Your task to perform on an android device: Empty the shopping cart on target.com. Add "logitech g pro" to the cart on target.com, then select checkout. Image 0: 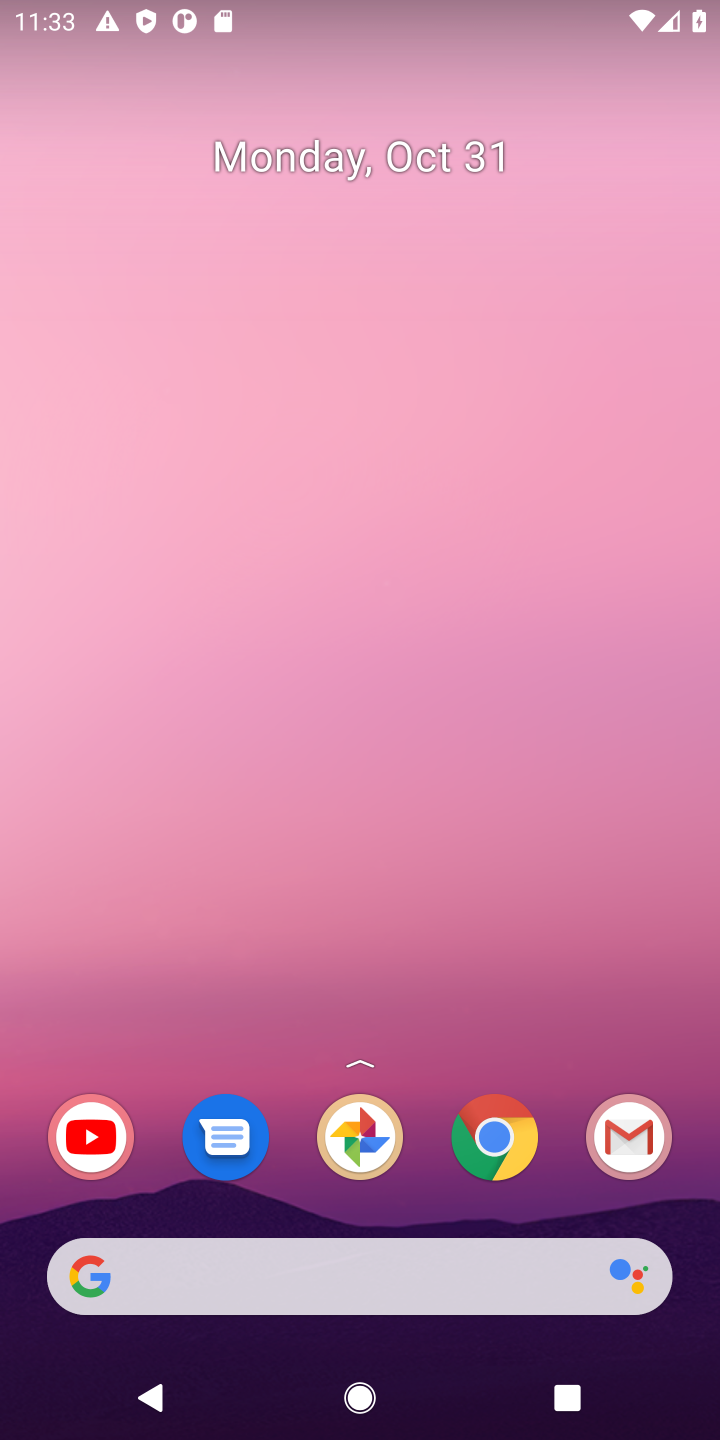
Step 0: click (493, 1135)
Your task to perform on an android device: Empty the shopping cart on target.com. Add "logitech g pro" to the cart on target.com, then select checkout. Image 1: 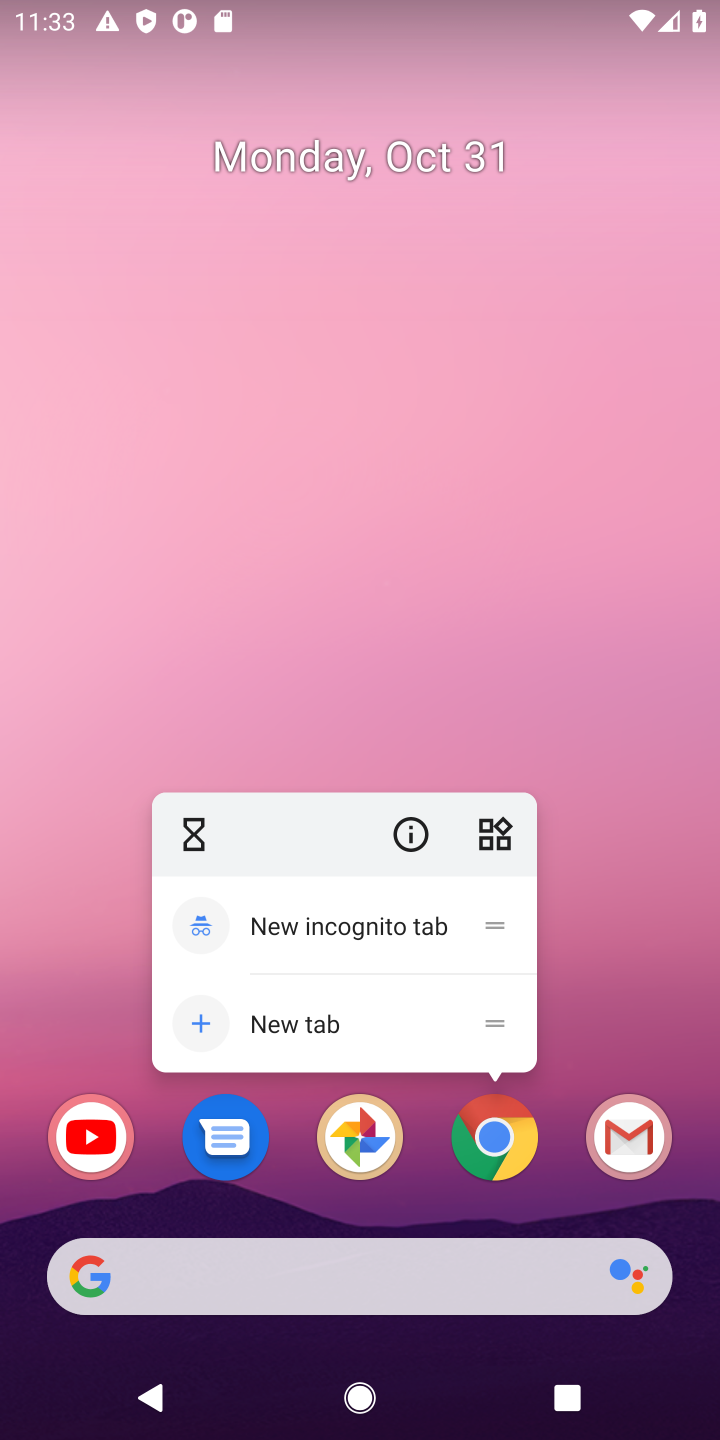
Step 1: click (493, 1135)
Your task to perform on an android device: Empty the shopping cart on target.com. Add "logitech g pro" to the cart on target.com, then select checkout. Image 2: 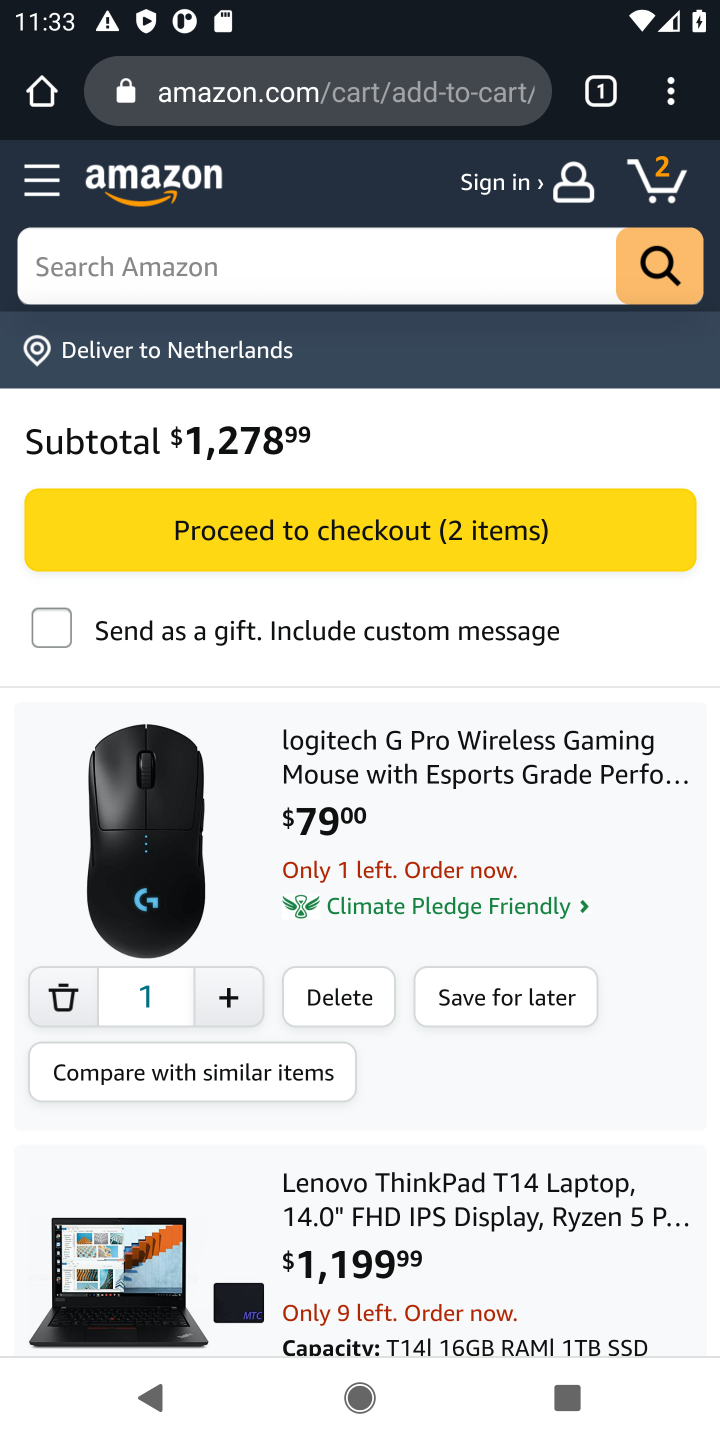
Step 2: click (312, 77)
Your task to perform on an android device: Empty the shopping cart on target.com. Add "logitech g pro" to the cart on target.com, then select checkout. Image 3: 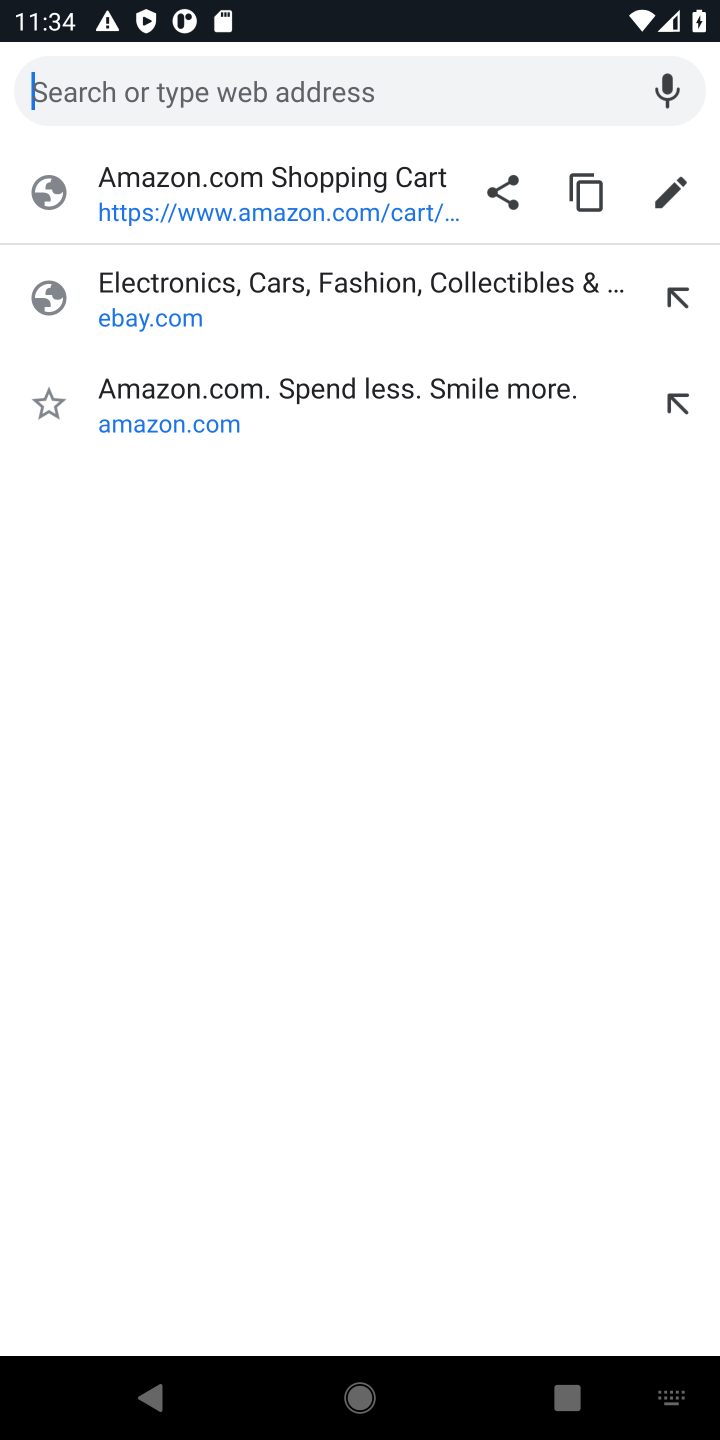
Step 3: type "target.com"
Your task to perform on an android device: Empty the shopping cart on target.com. Add "logitech g pro" to the cart on target.com, then select checkout. Image 4: 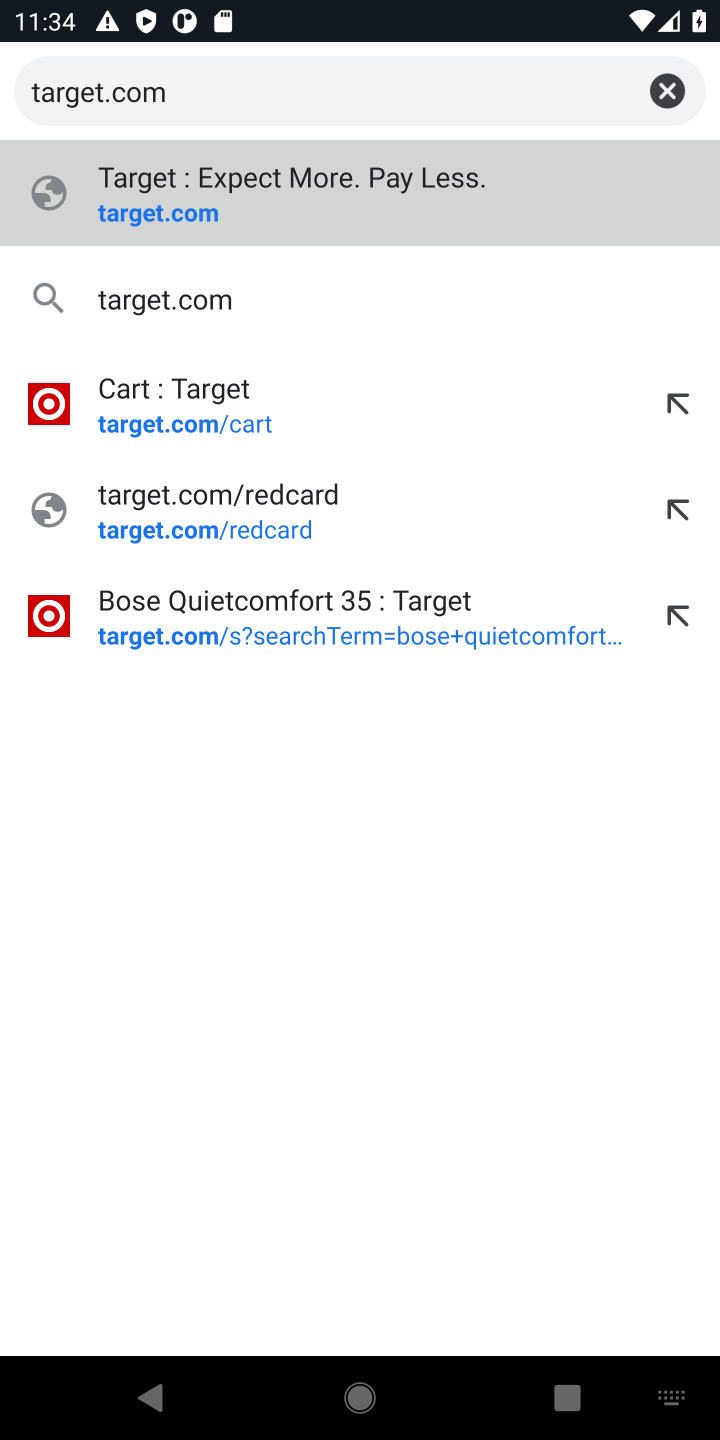
Step 4: click (211, 311)
Your task to perform on an android device: Empty the shopping cart on target.com. Add "logitech g pro" to the cart on target.com, then select checkout. Image 5: 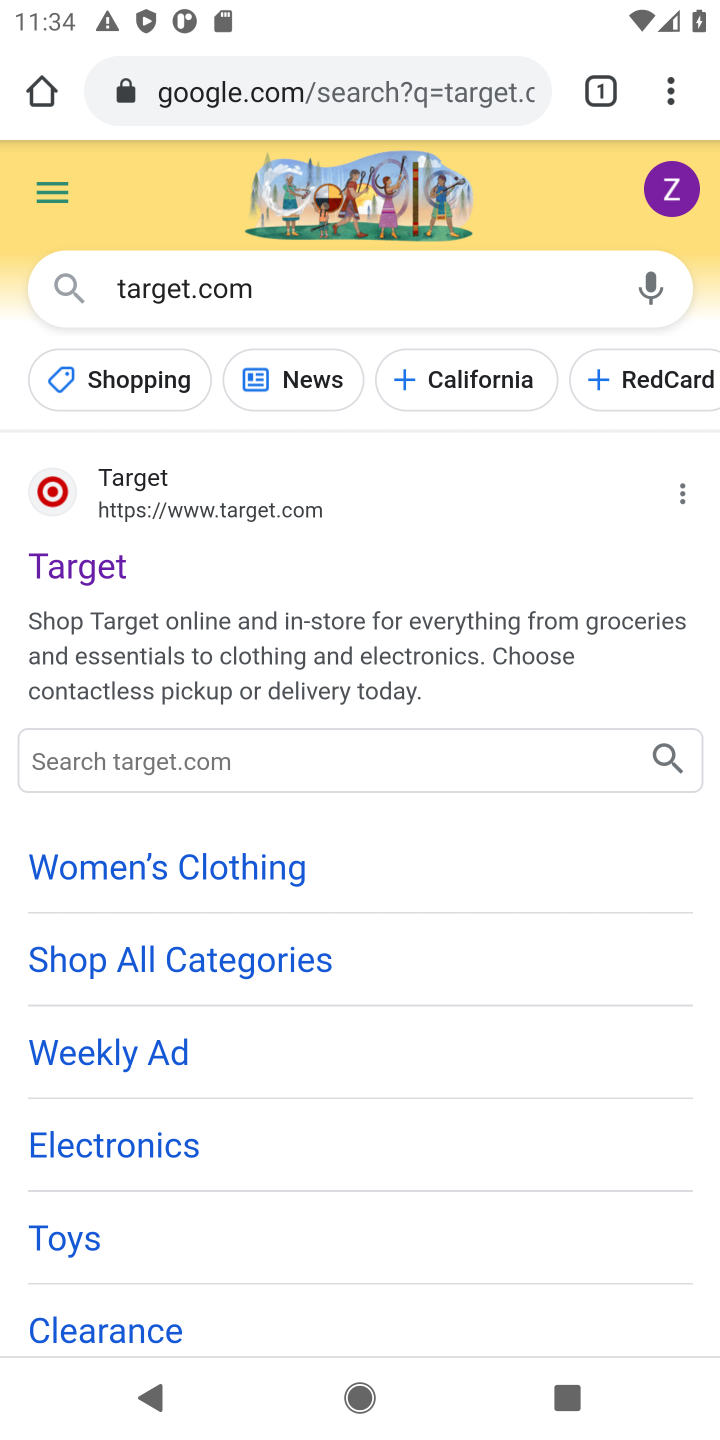
Step 5: click (172, 501)
Your task to perform on an android device: Empty the shopping cart on target.com. Add "logitech g pro" to the cart on target.com, then select checkout. Image 6: 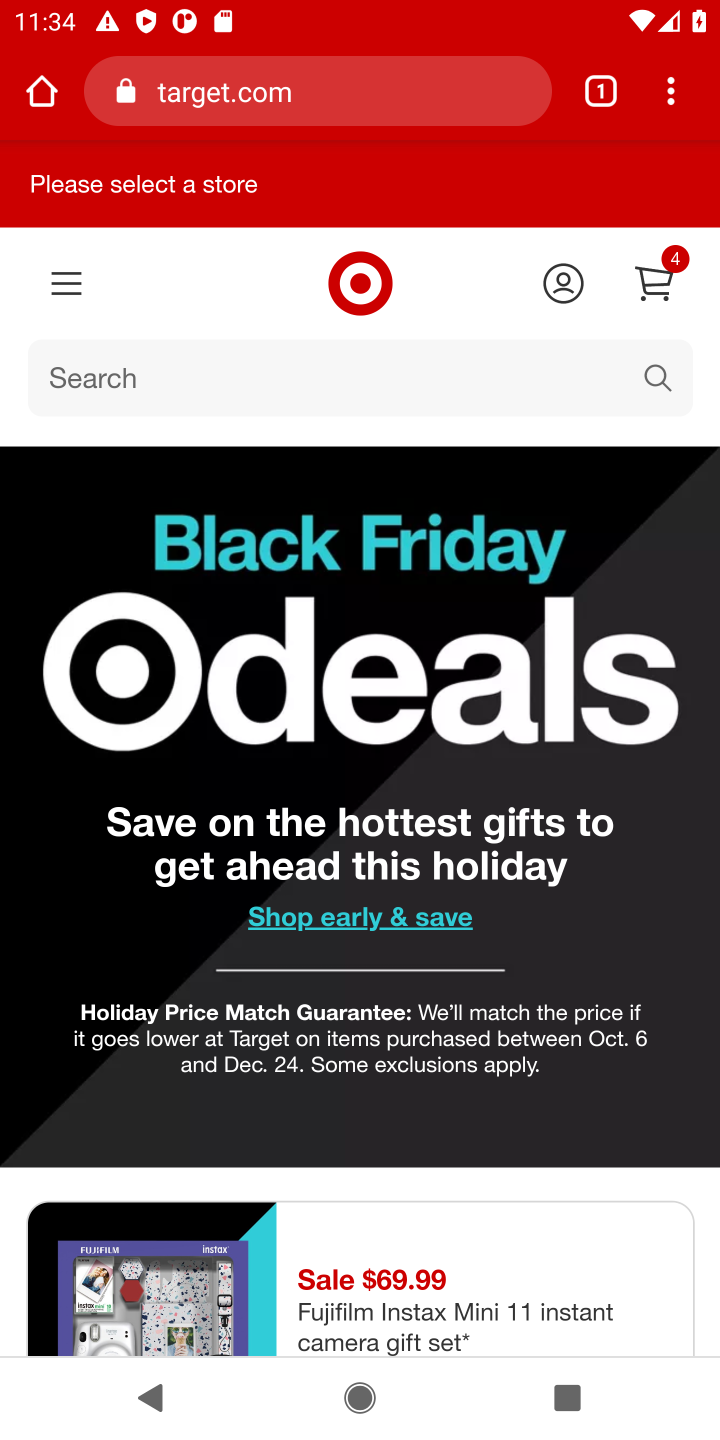
Step 6: click (665, 275)
Your task to perform on an android device: Empty the shopping cart on target.com. Add "logitech g pro" to the cart on target.com, then select checkout. Image 7: 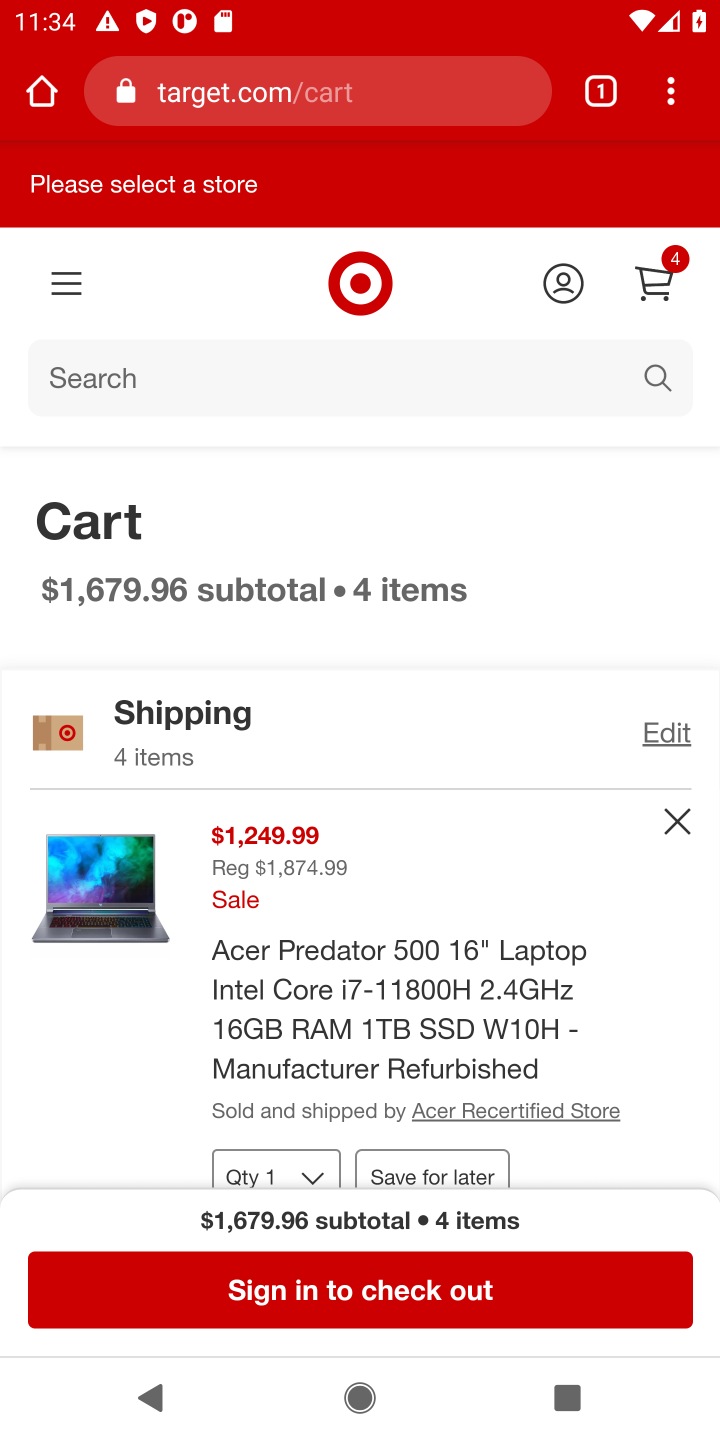
Step 7: drag from (538, 975) to (533, 621)
Your task to perform on an android device: Empty the shopping cart on target.com. Add "logitech g pro" to the cart on target.com, then select checkout. Image 8: 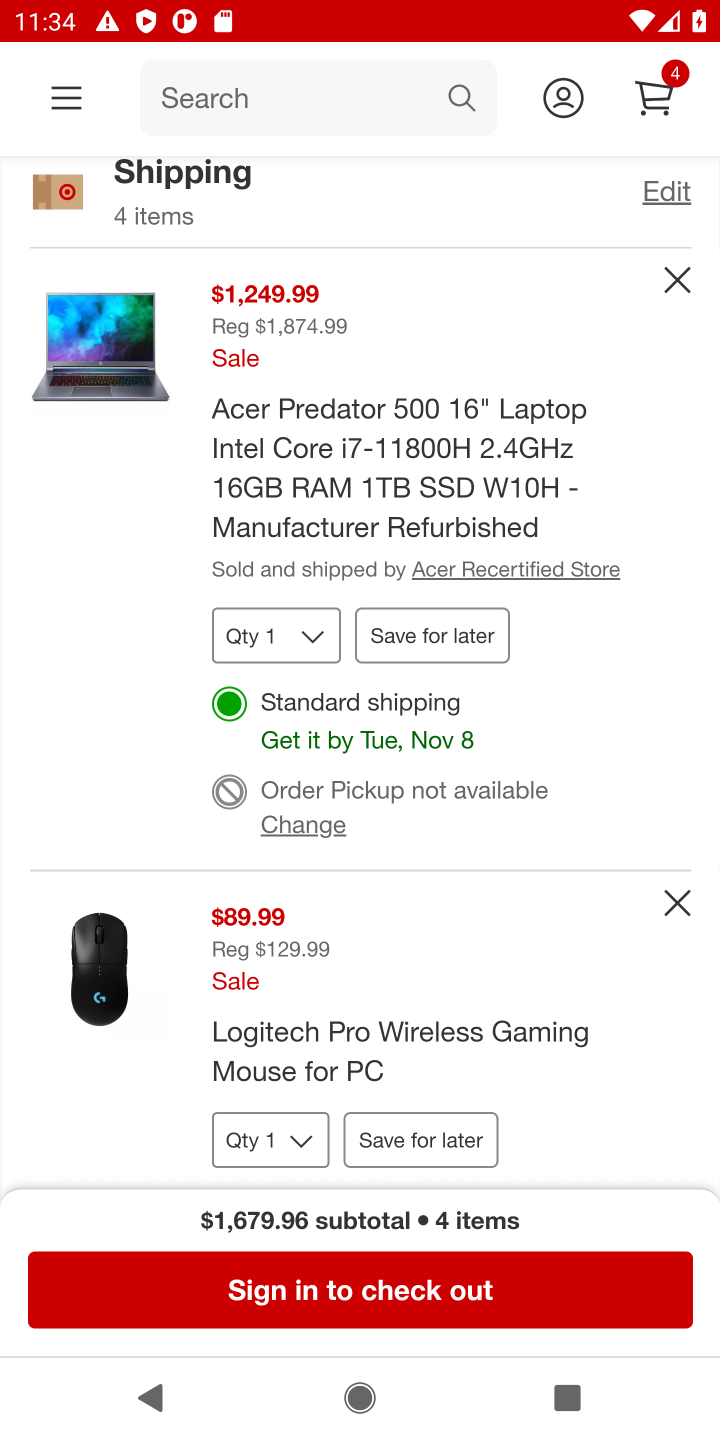
Step 8: click (452, 845)
Your task to perform on an android device: Empty the shopping cart on target.com. Add "logitech g pro" to the cart on target.com, then select checkout. Image 9: 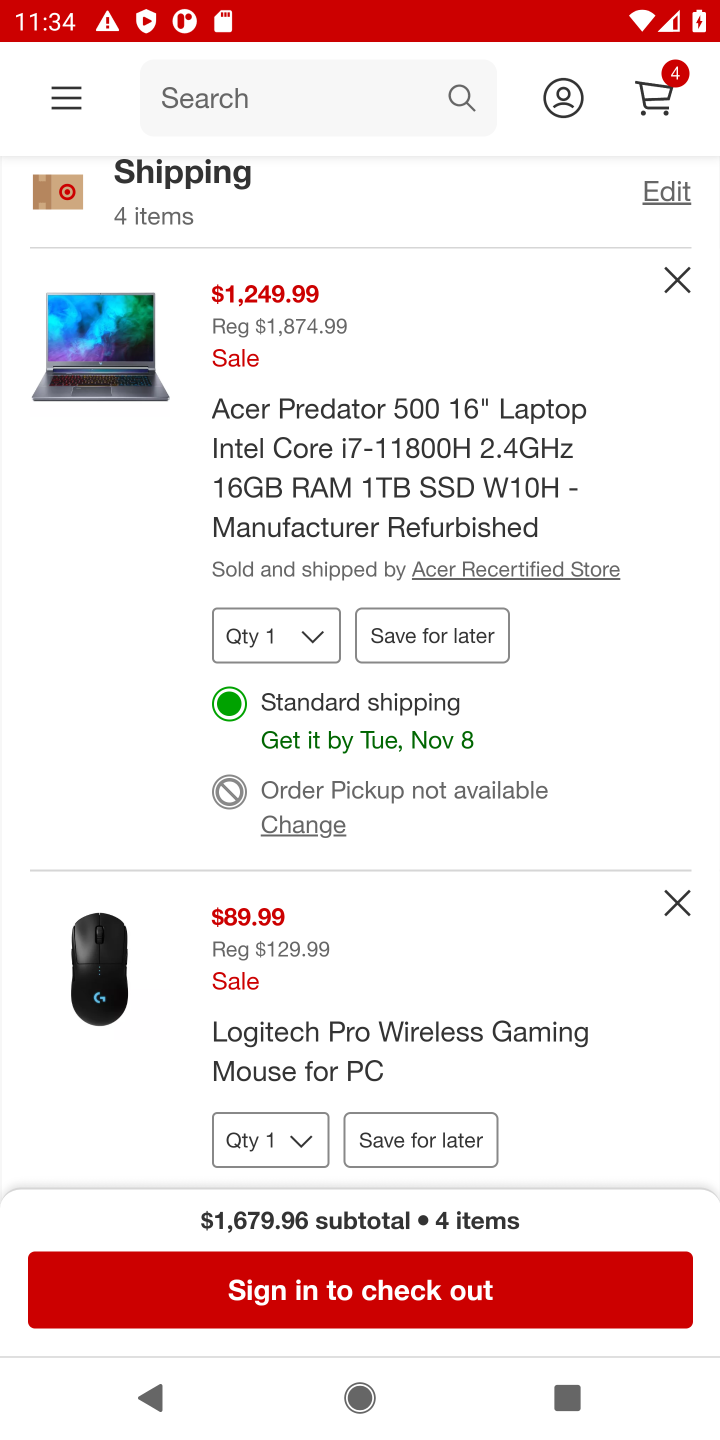
Step 9: click (437, 637)
Your task to perform on an android device: Empty the shopping cart on target.com. Add "logitech g pro" to the cart on target.com, then select checkout. Image 10: 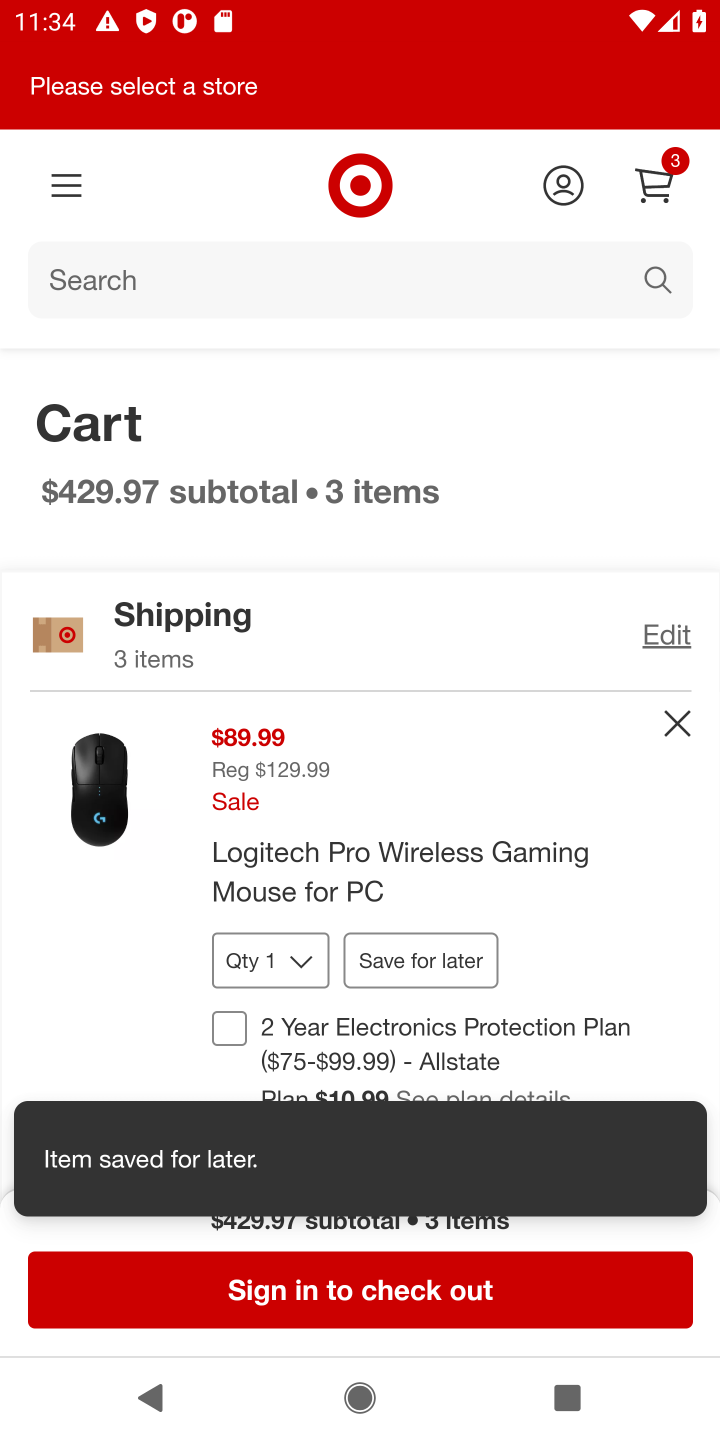
Step 10: click (424, 958)
Your task to perform on an android device: Empty the shopping cart on target.com. Add "logitech g pro" to the cart on target.com, then select checkout. Image 11: 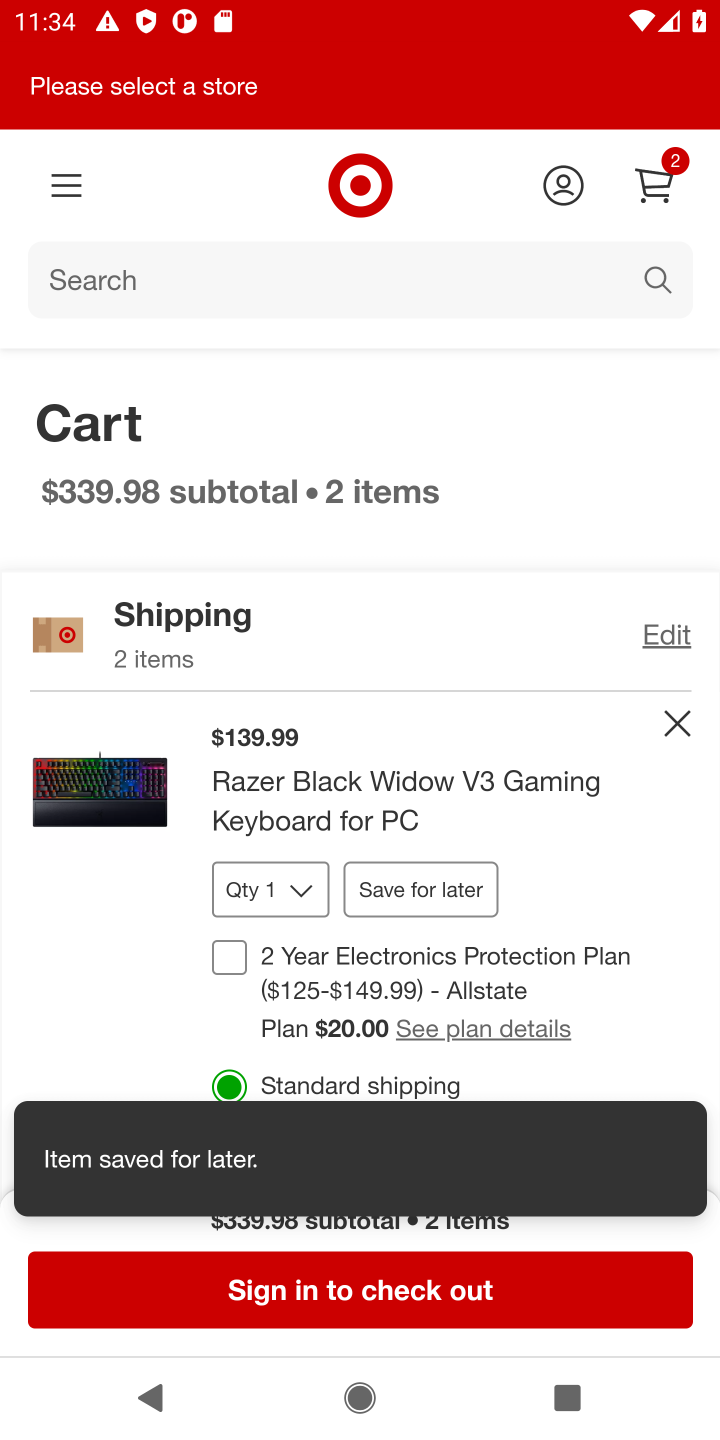
Step 11: click (431, 887)
Your task to perform on an android device: Empty the shopping cart on target.com. Add "logitech g pro" to the cart on target.com, then select checkout. Image 12: 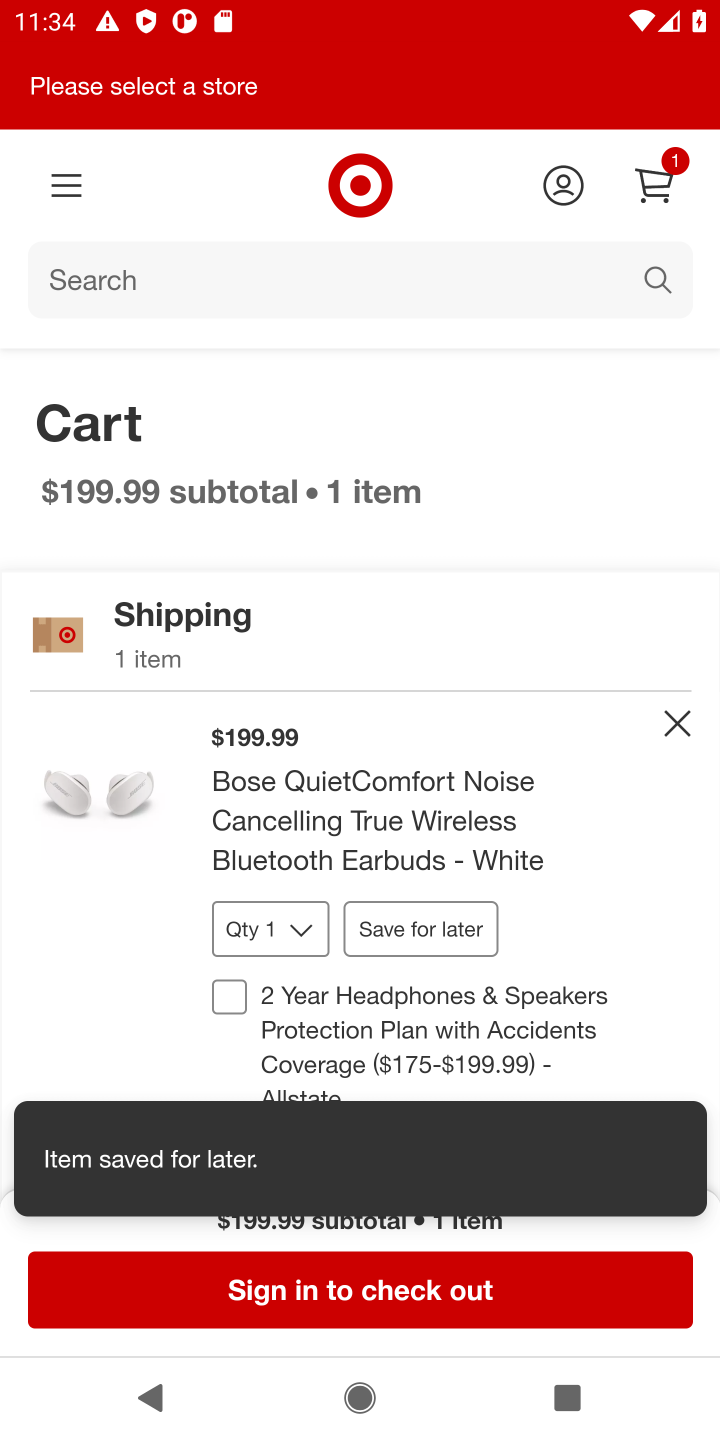
Step 12: click (417, 930)
Your task to perform on an android device: Empty the shopping cart on target.com. Add "logitech g pro" to the cart on target.com, then select checkout. Image 13: 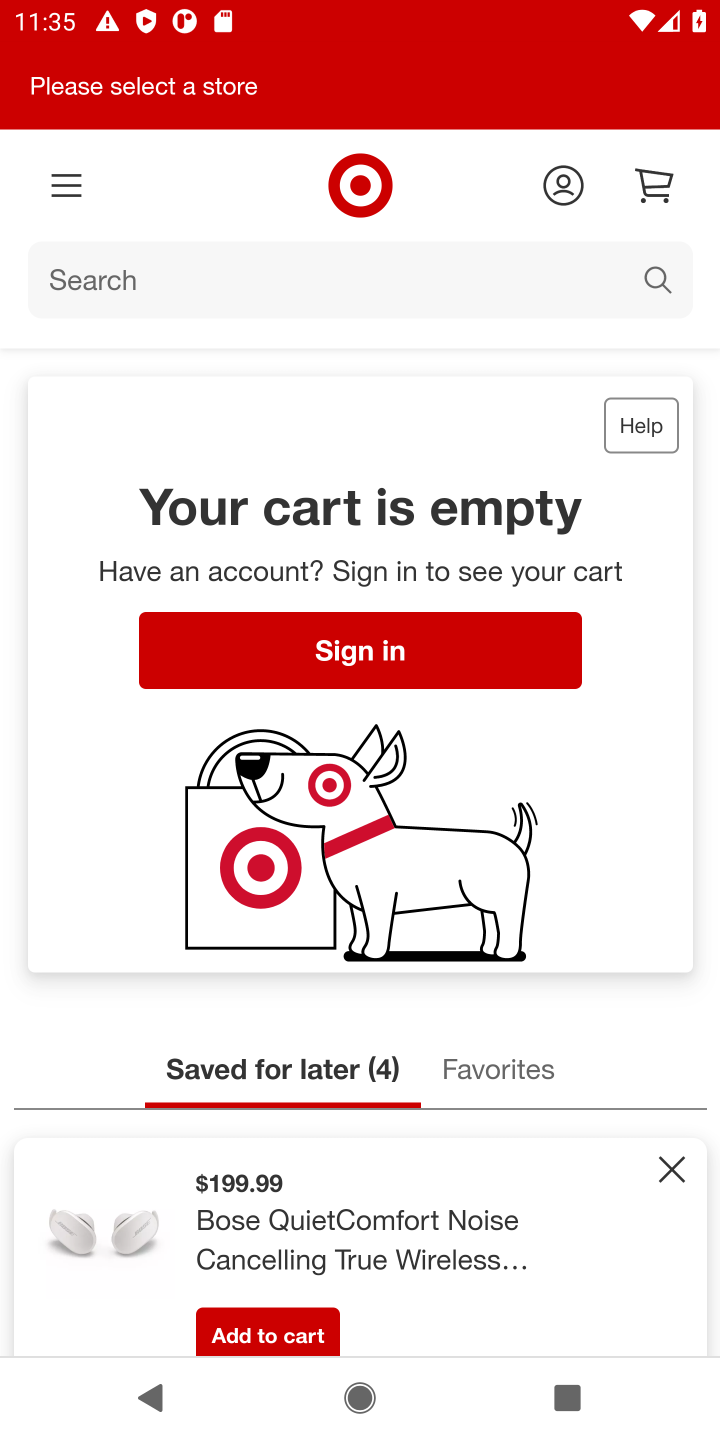
Step 13: click (364, 276)
Your task to perform on an android device: Empty the shopping cart on target.com. Add "logitech g pro" to the cart on target.com, then select checkout. Image 14: 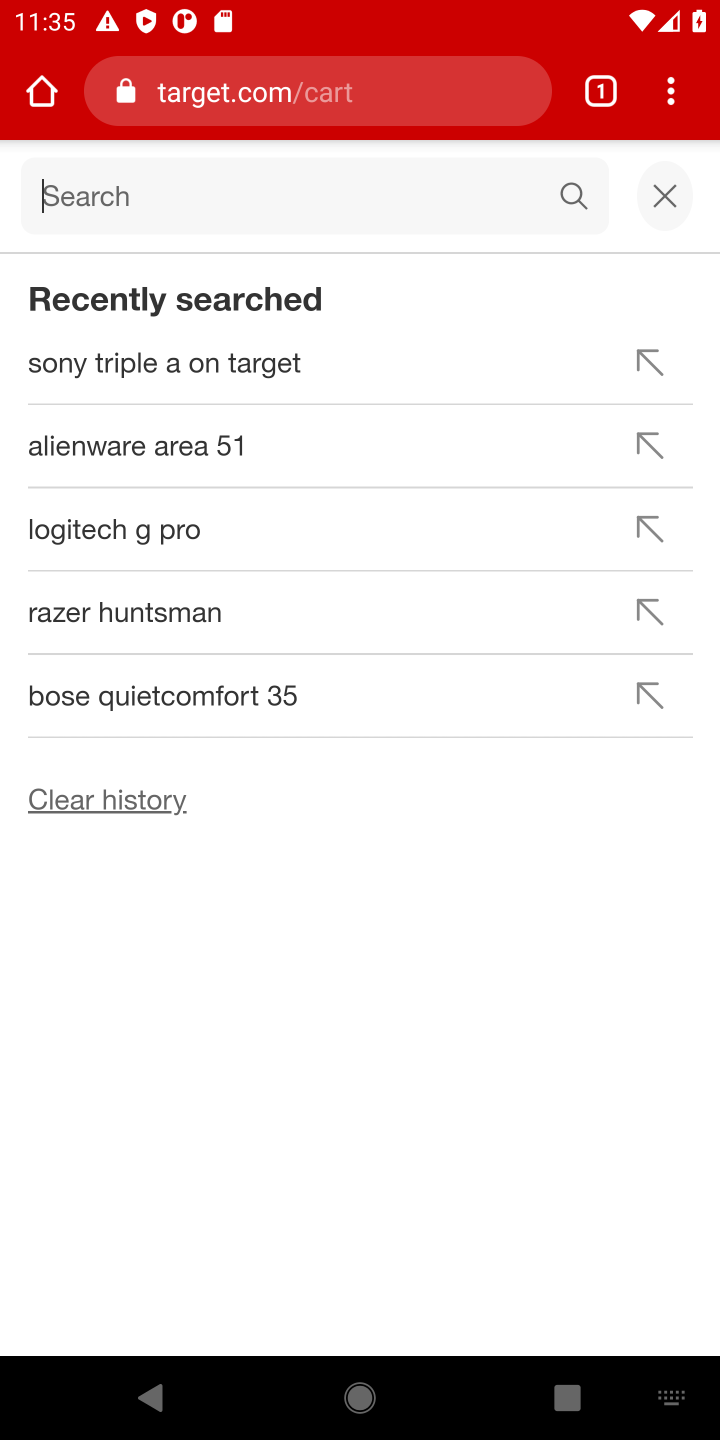
Step 14: type "logitech g pro"
Your task to perform on an android device: Empty the shopping cart on target.com. Add "logitech g pro" to the cart on target.com, then select checkout. Image 15: 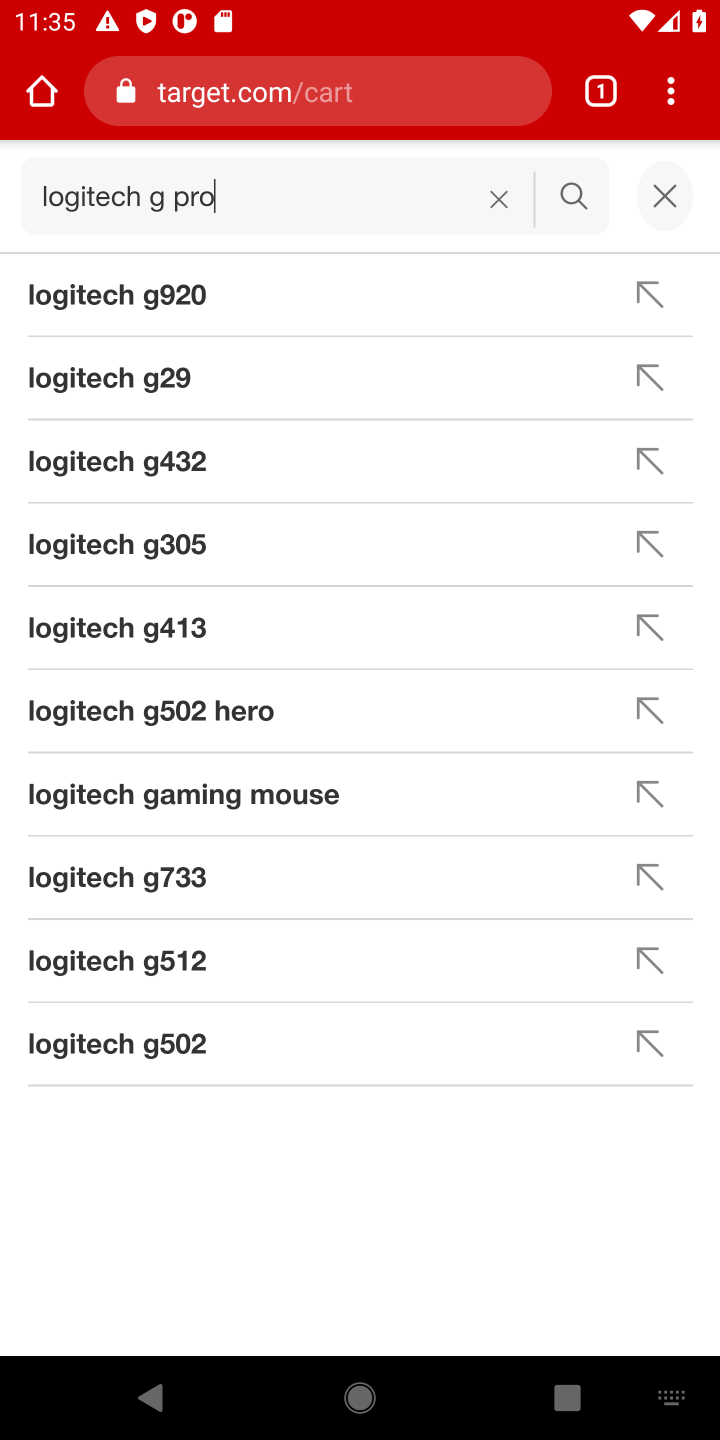
Step 15: click (568, 188)
Your task to perform on an android device: Empty the shopping cart on target.com. Add "logitech g pro" to the cart on target.com, then select checkout. Image 16: 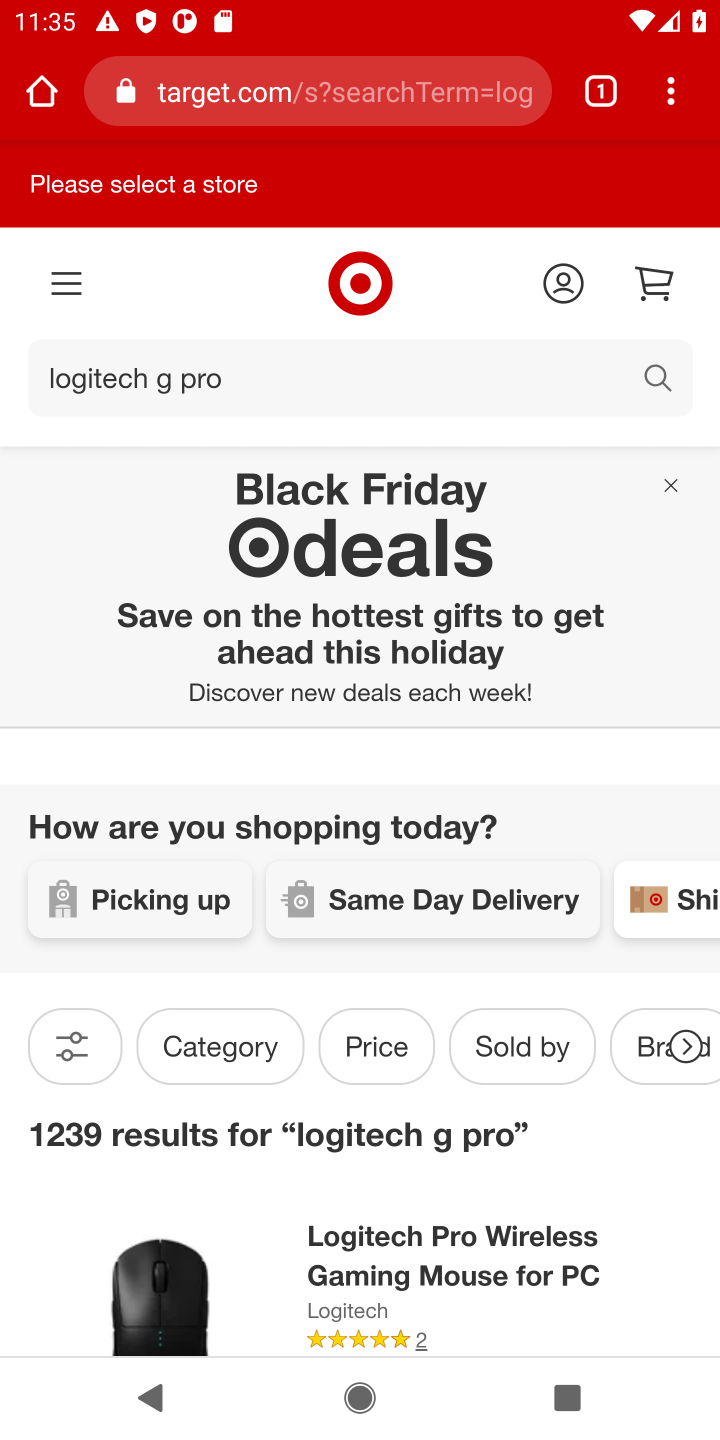
Step 16: click (473, 1244)
Your task to perform on an android device: Empty the shopping cart on target.com. Add "logitech g pro" to the cart on target.com, then select checkout. Image 17: 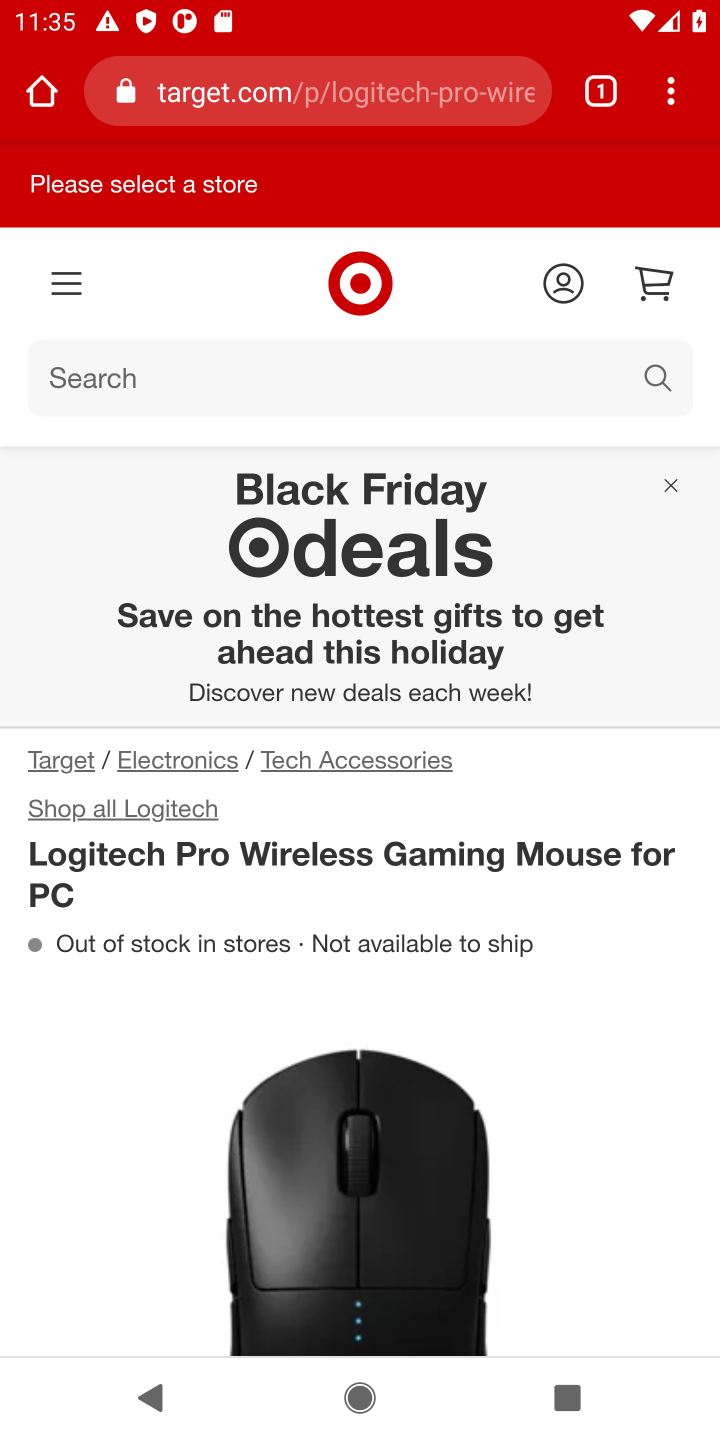
Step 17: drag from (533, 1133) to (500, 453)
Your task to perform on an android device: Empty the shopping cart on target.com. Add "logitech g pro" to the cart on target.com, then select checkout. Image 18: 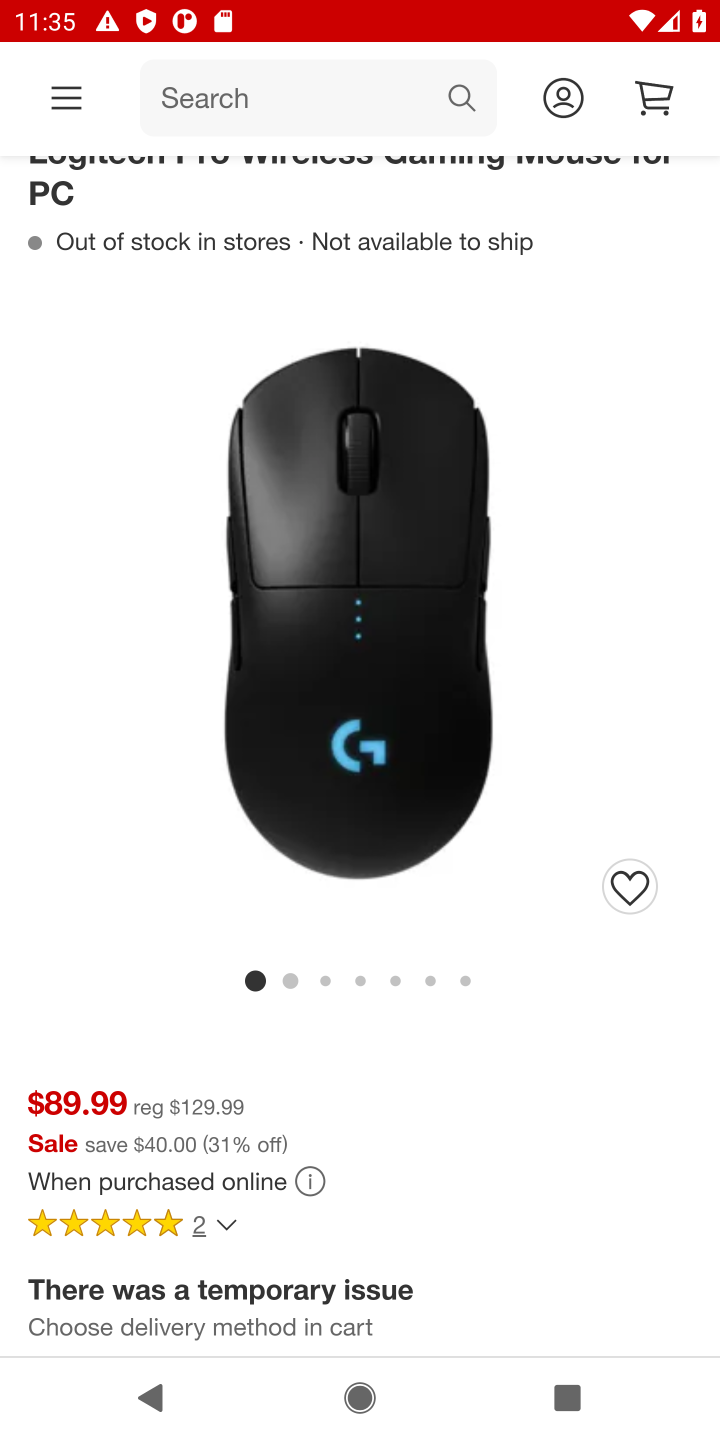
Step 18: drag from (484, 1090) to (517, 429)
Your task to perform on an android device: Empty the shopping cart on target.com. Add "logitech g pro" to the cart on target.com, then select checkout. Image 19: 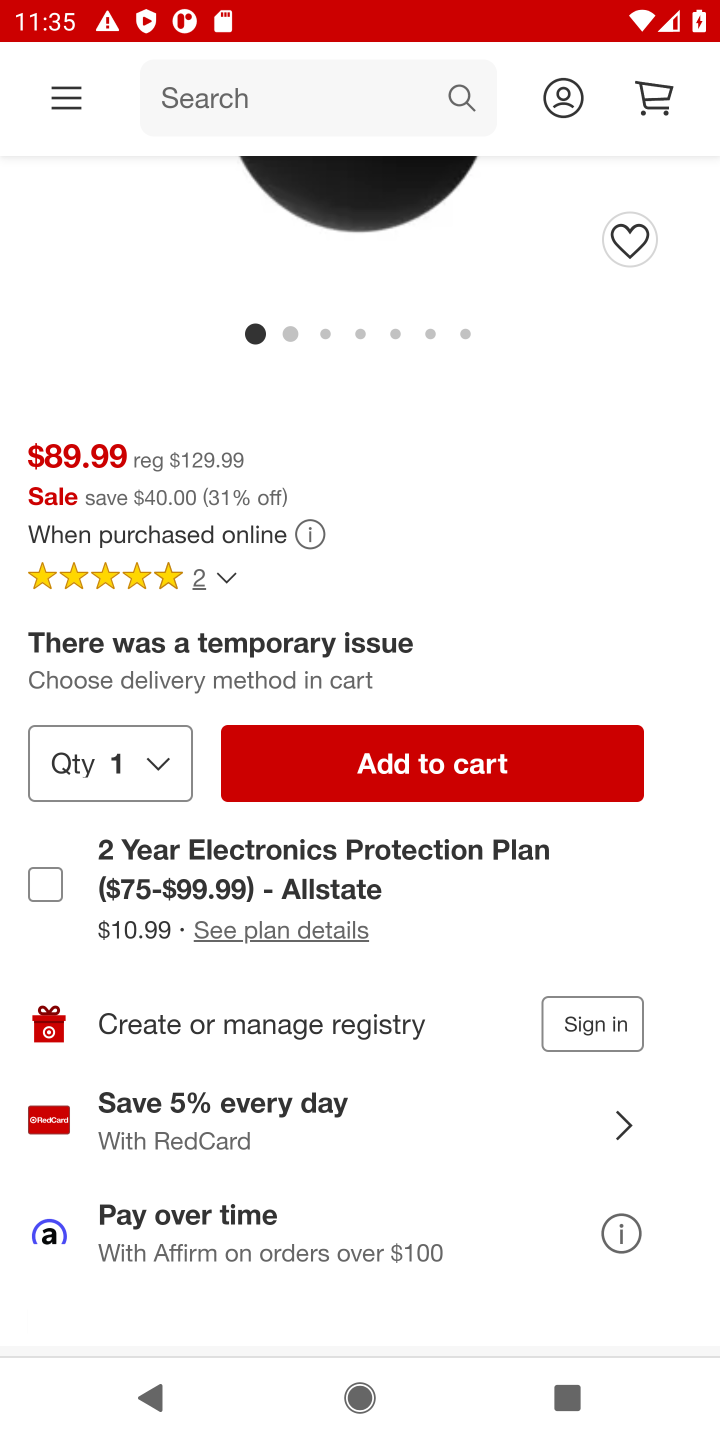
Step 19: click (419, 761)
Your task to perform on an android device: Empty the shopping cart on target.com. Add "logitech g pro" to the cart on target.com, then select checkout. Image 20: 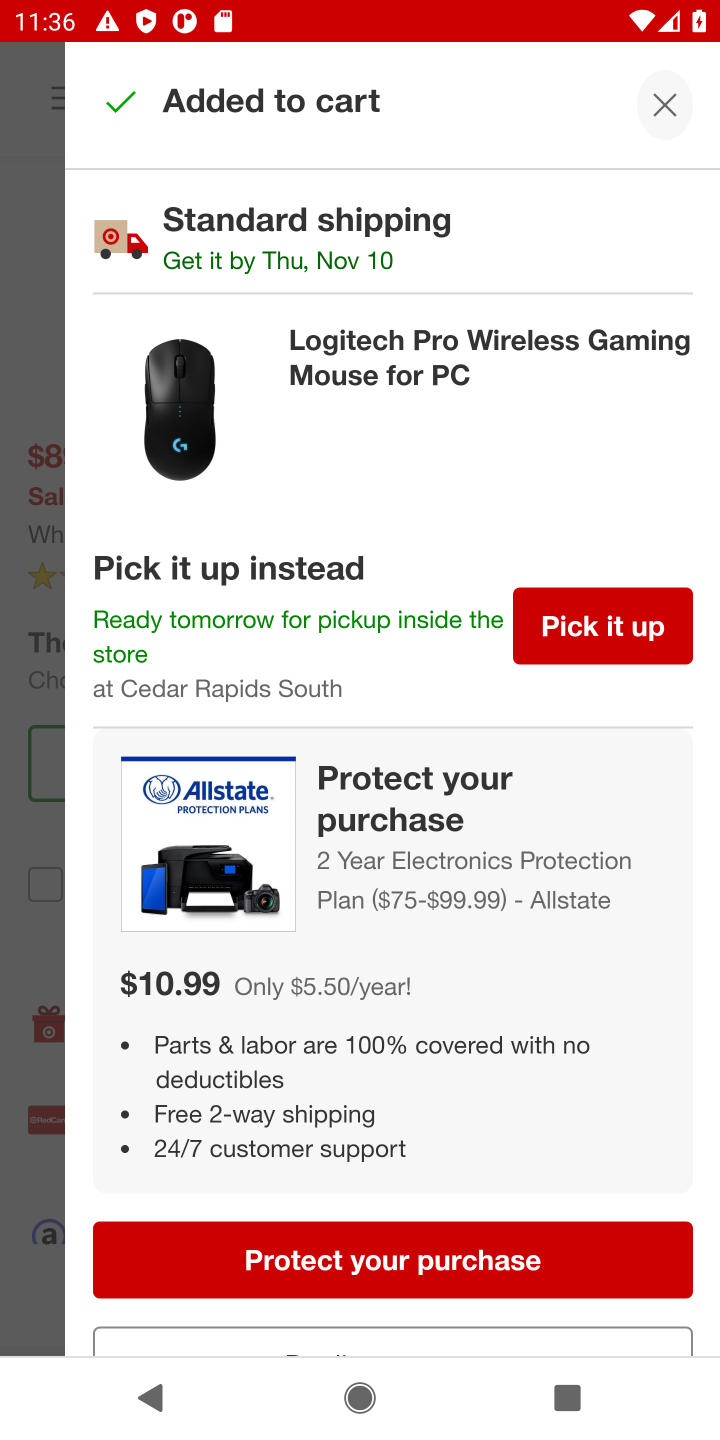
Step 20: drag from (511, 1090) to (547, 531)
Your task to perform on an android device: Empty the shopping cart on target.com. Add "logitech g pro" to the cart on target.com, then select checkout. Image 21: 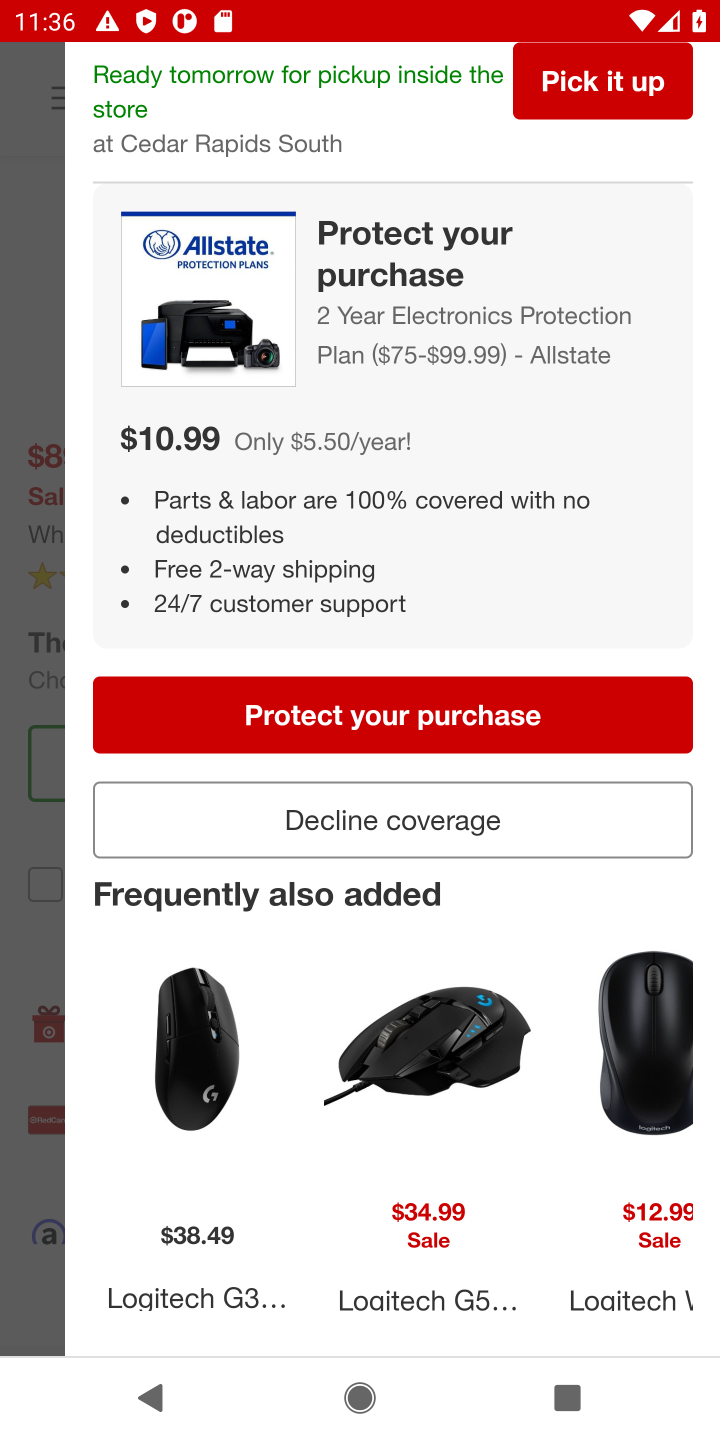
Step 21: click (386, 842)
Your task to perform on an android device: Empty the shopping cart on target.com. Add "logitech g pro" to the cart on target.com, then select checkout. Image 22: 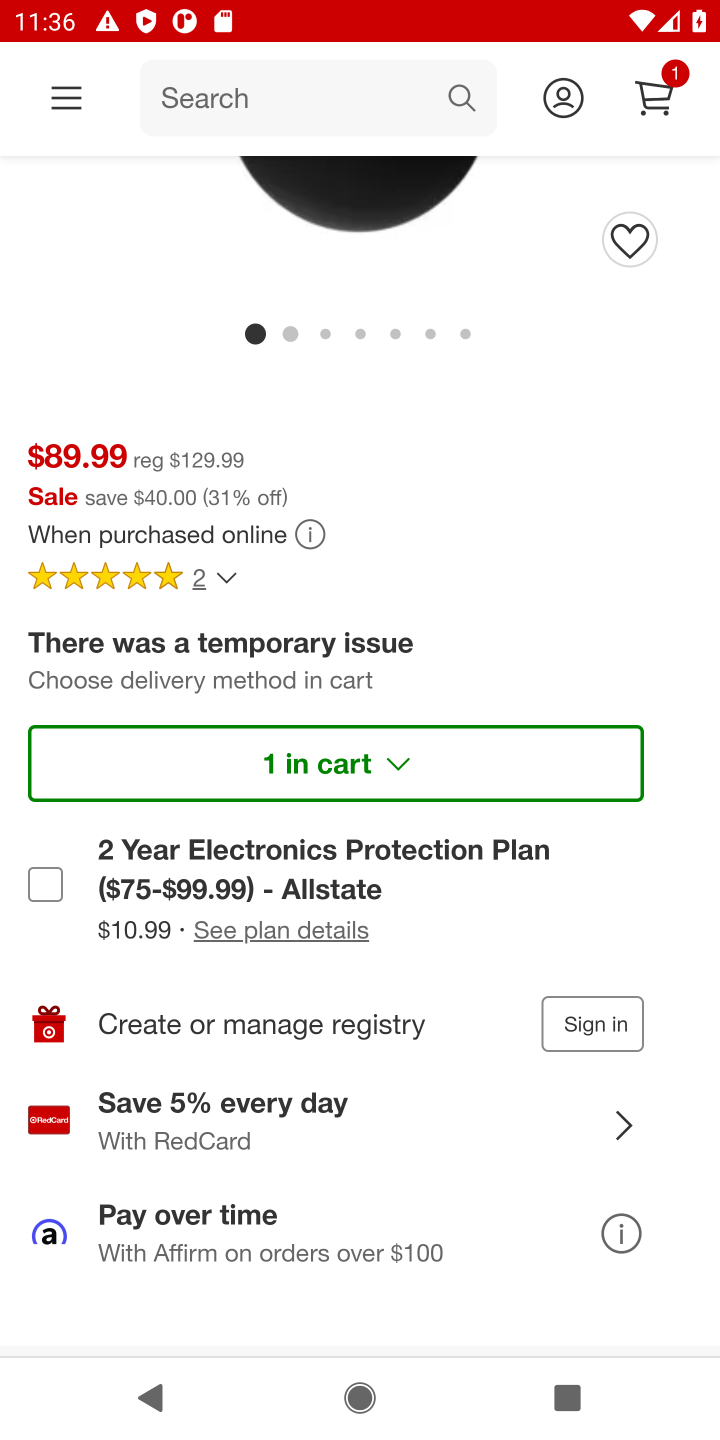
Step 22: click (651, 94)
Your task to perform on an android device: Empty the shopping cart on target.com. Add "logitech g pro" to the cart on target.com, then select checkout. Image 23: 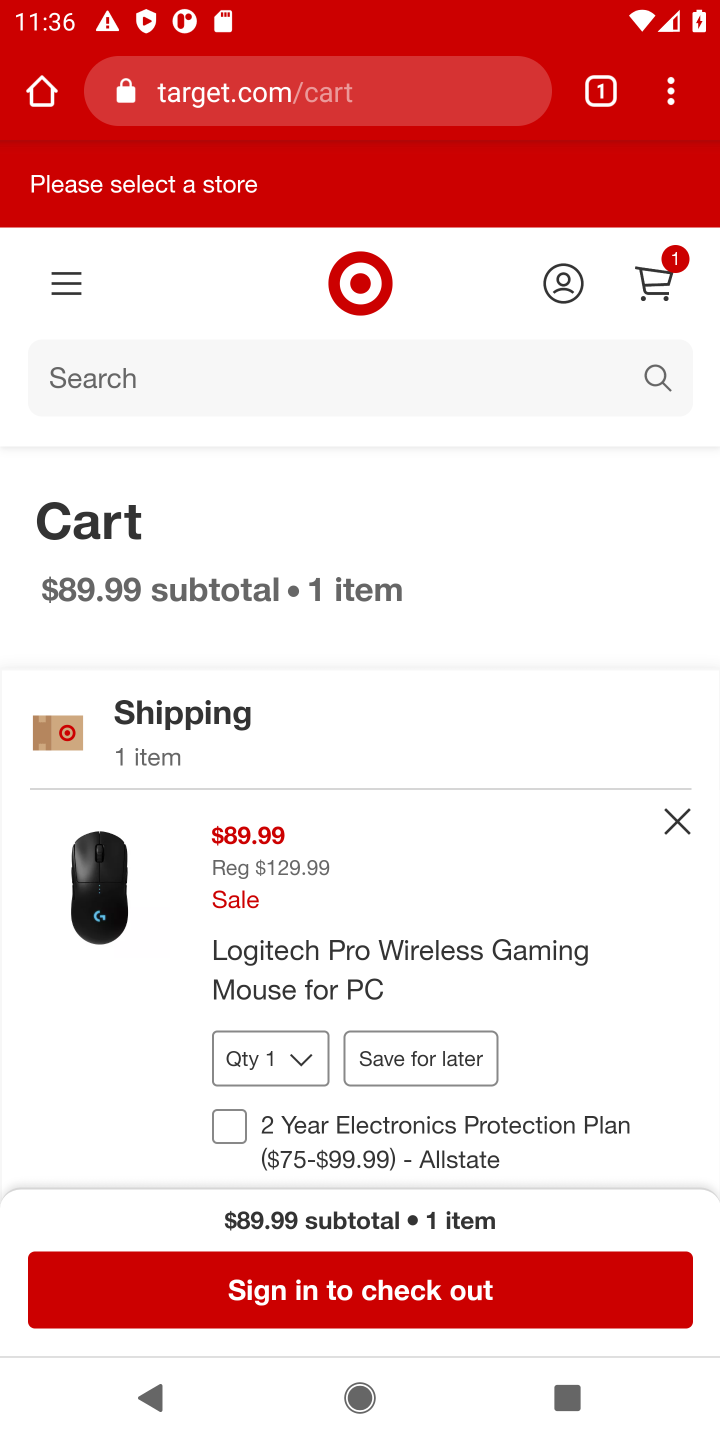
Step 23: click (378, 1289)
Your task to perform on an android device: Empty the shopping cart on target.com. Add "logitech g pro" to the cart on target.com, then select checkout. Image 24: 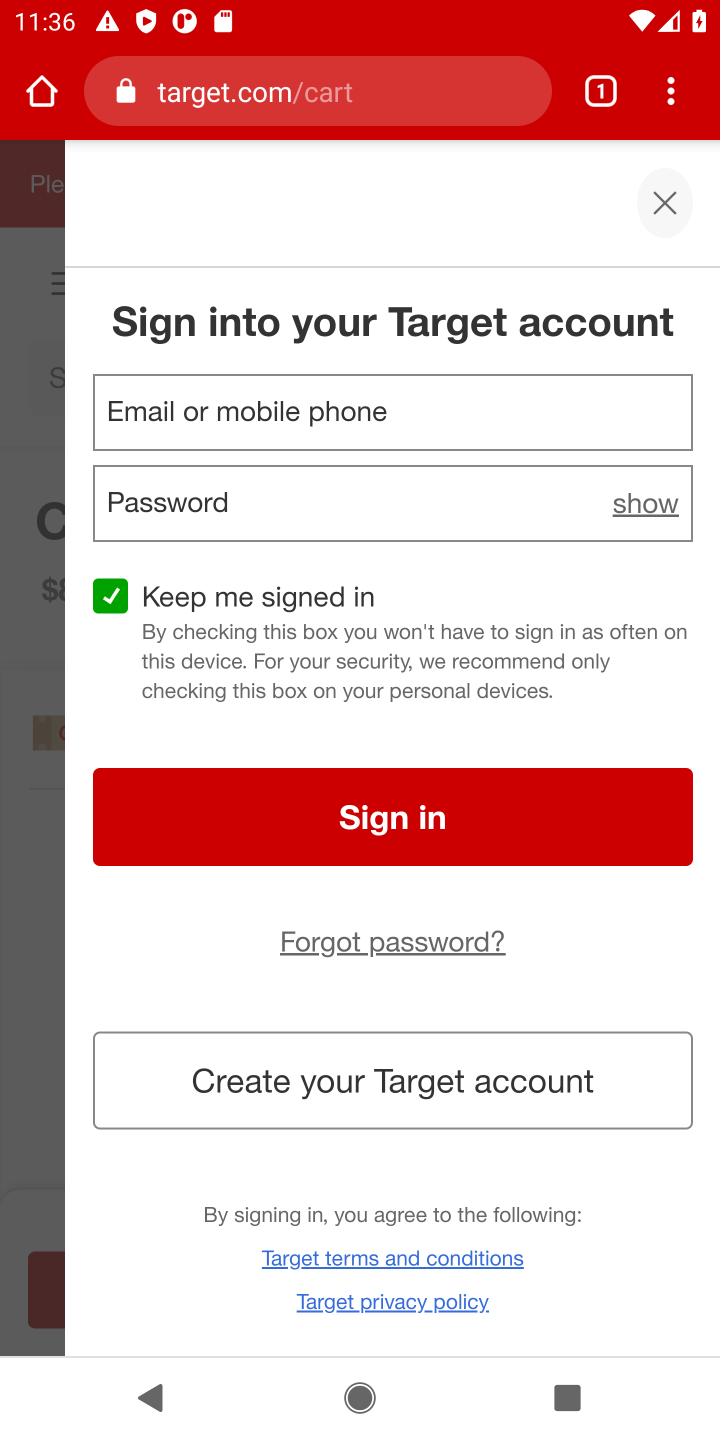
Step 24: task complete